Your task to perform on an android device: toggle improve location accuracy Image 0: 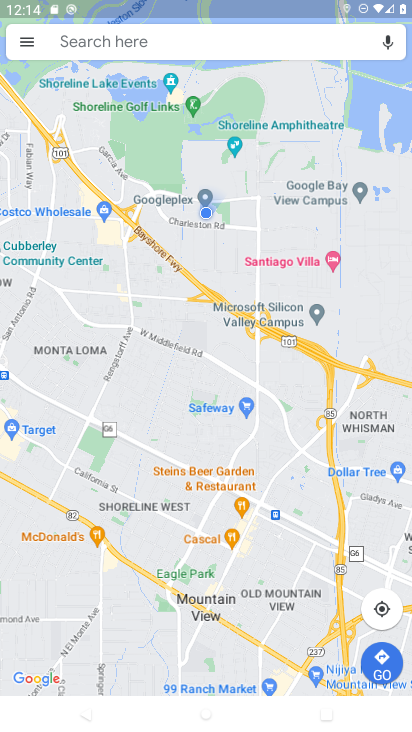
Step 0: press home button
Your task to perform on an android device: toggle improve location accuracy Image 1: 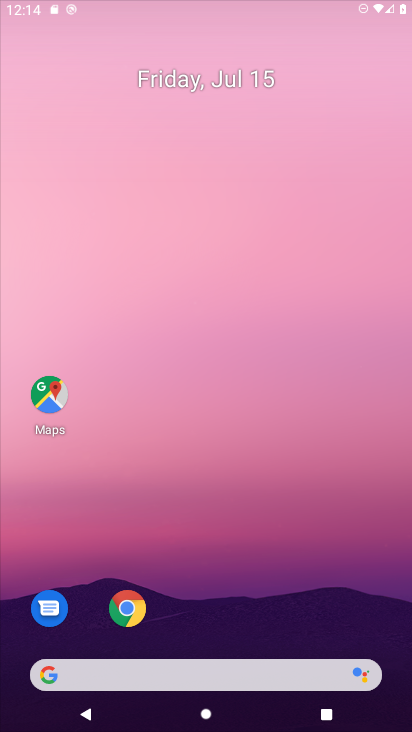
Step 1: drag from (288, 631) to (351, 4)
Your task to perform on an android device: toggle improve location accuracy Image 2: 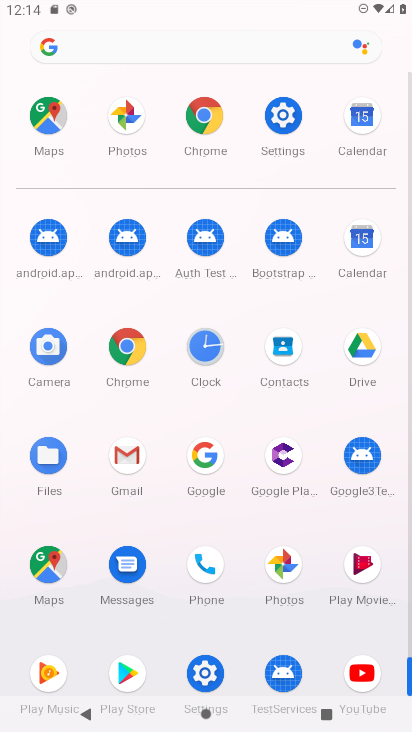
Step 2: click (280, 112)
Your task to perform on an android device: toggle improve location accuracy Image 3: 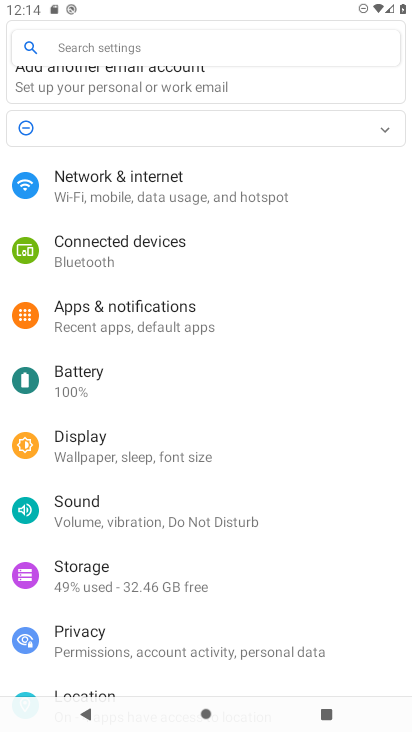
Step 3: drag from (155, 660) to (142, 418)
Your task to perform on an android device: toggle improve location accuracy Image 4: 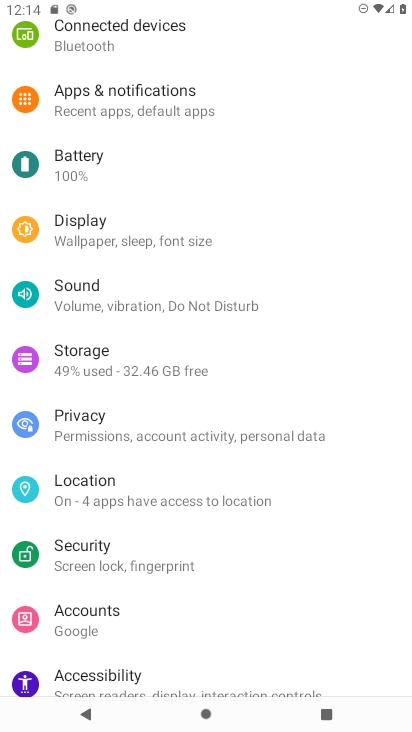
Step 4: click (113, 483)
Your task to perform on an android device: toggle improve location accuracy Image 5: 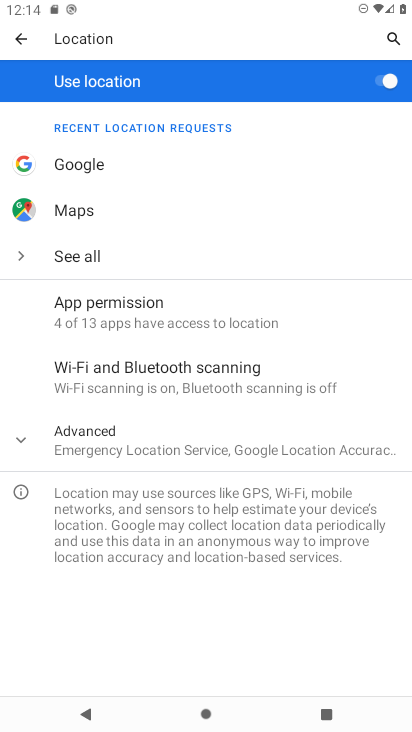
Step 5: click (133, 444)
Your task to perform on an android device: toggle improve location accuracy Image 6: 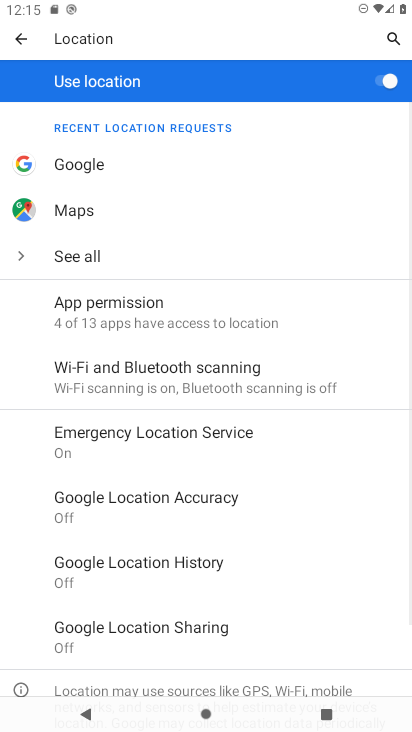
Step 6: click (152, 512)
Your task to perform on an android device: toggle improve location accuracy Image 7: 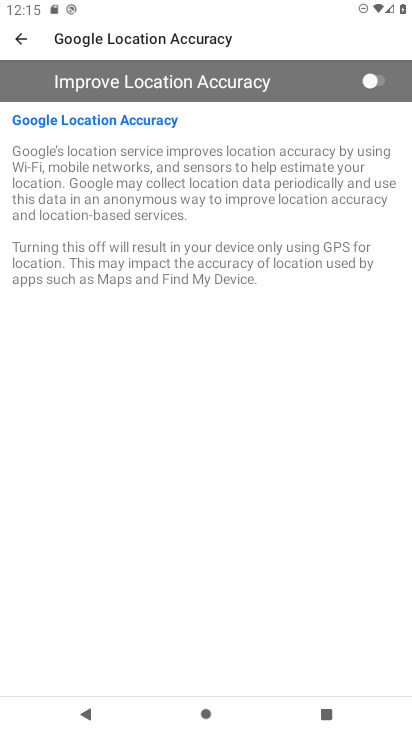
Step 7: click (381, 75)
Your task to perform on an android device: toggle improve location accuracy Image 8: 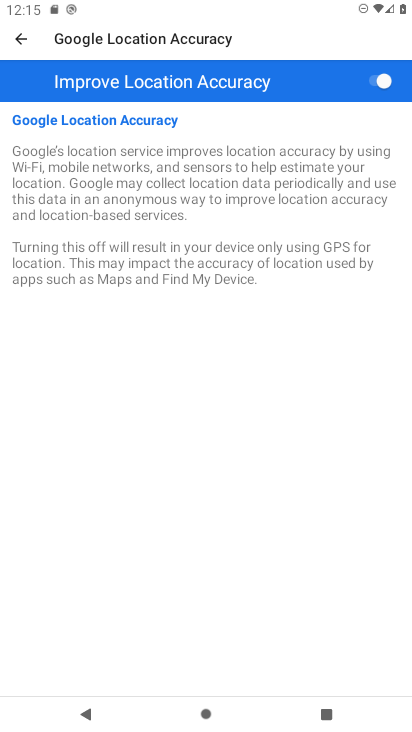
Step 8: task complete